Your task to perform on an android device: see creations saved in the google photos Image 0: 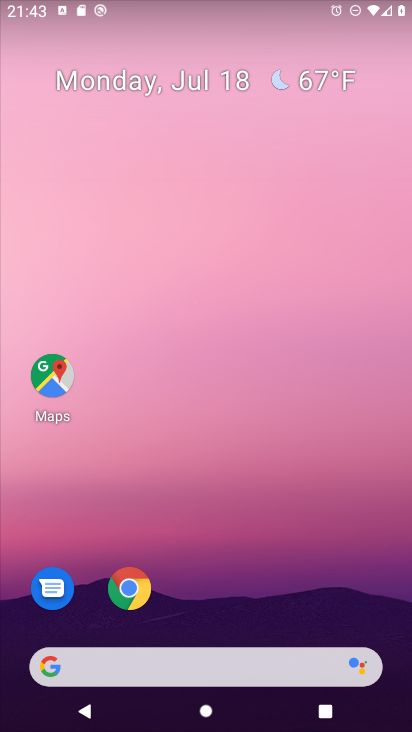
Step 0: drag from (377, 619) to (338, 67)
Your task to perform on an android device: see creations saved in the google photos Image 1: 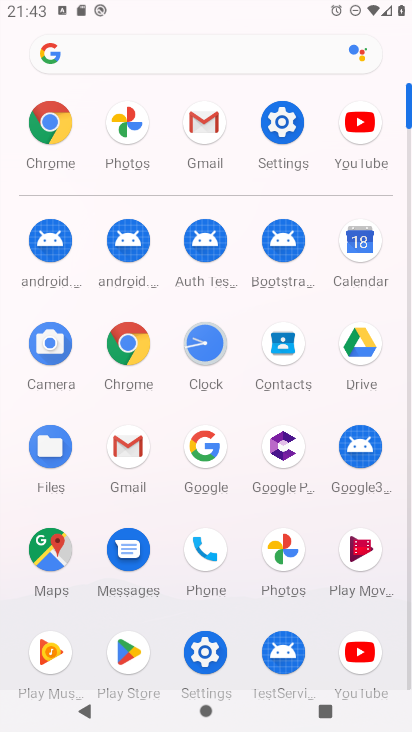
Step 1: click (284, 548)
Your task to perform on an android device: see creations saved in the google photos Image 2: 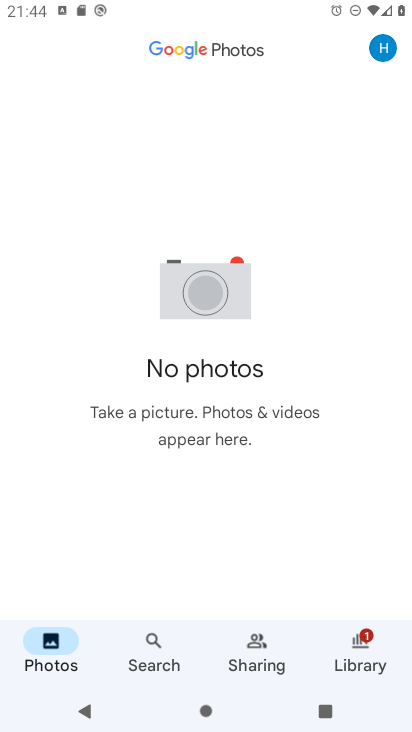
Step 2: task complete